Your task to perform on an android device: What is the recent news? Image 0: 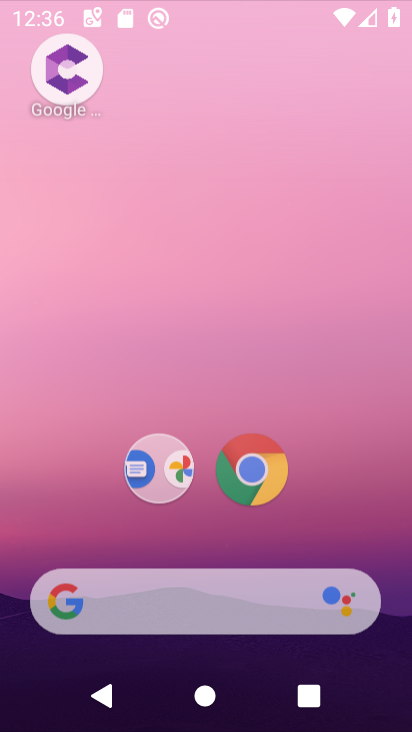
Step 0: drag from (291, 279) to (271, 137)
Your task to perform on an android device: What is the recent news? Image 1: 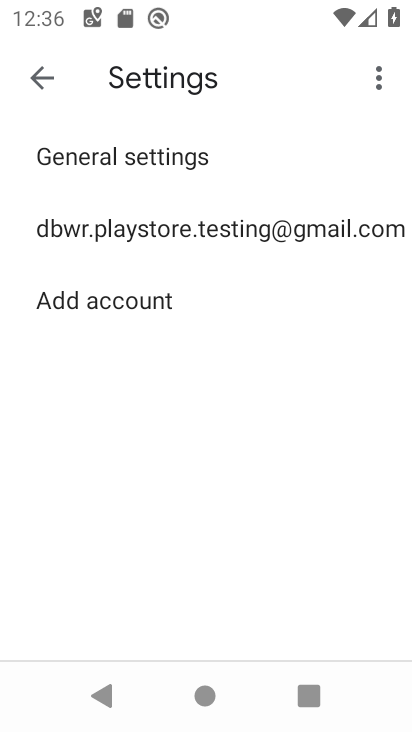
Step 1: press home button
Your task to perform on an android device: What is the recent news? Image 2: 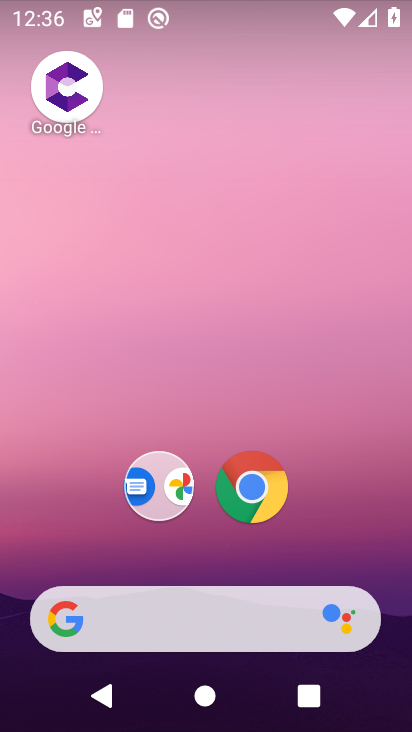
Step 2: drag from (264, 657) to (283, 179)
Your task to perform on an android device: What is the recent news? Image 3: 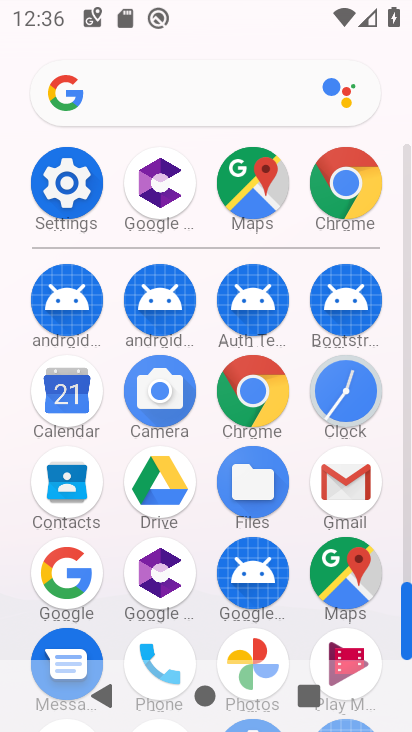
Step 3: click (153, 109)
Your task to perform on an android device: What is the recent news? Image 4: 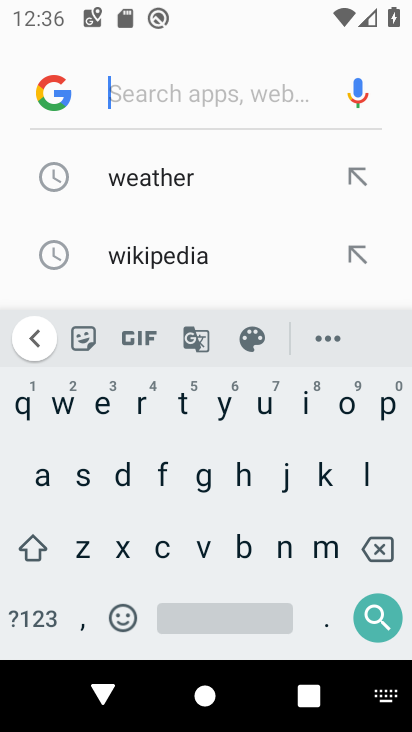
Step 4: click (140, 408)
Your task to perform on an android device: What is the recent news? Image 5: 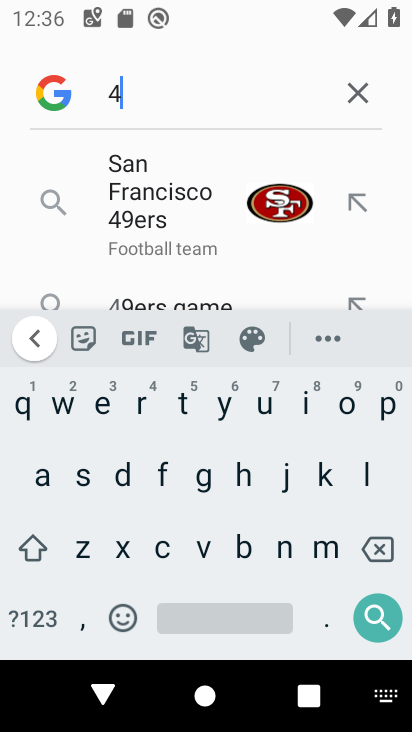
Step 5: click (390, 551)
Your task to perform on an android device: What is the recent news? Image 6: 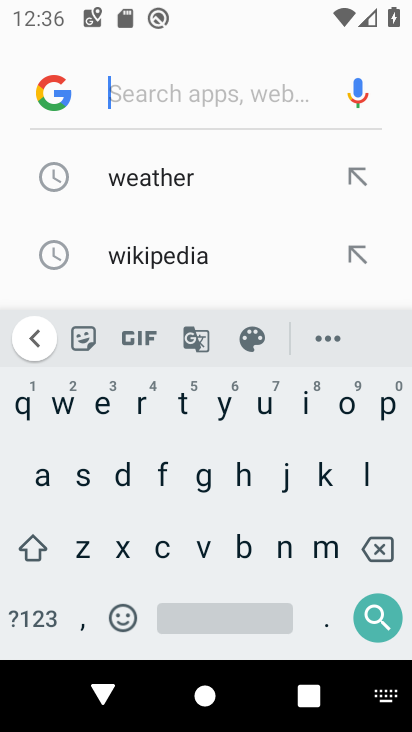
Step 6: click (139, 410)
Your task to perform on an android device: What is the recent news? Image 7: 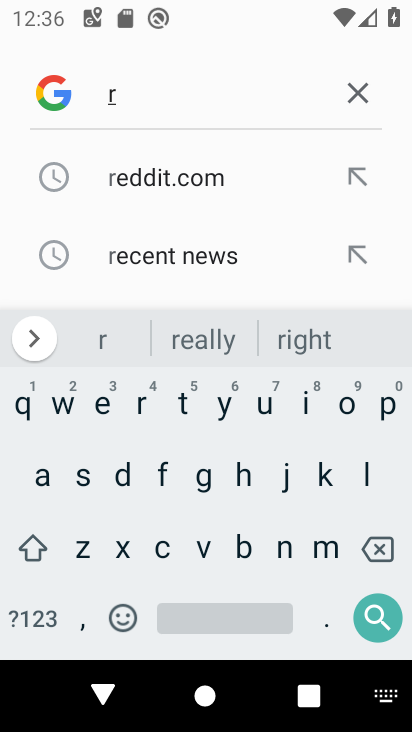
Step 7: click (179, 268)
Your task to perform on an android device: What is the recent news? Image 8: 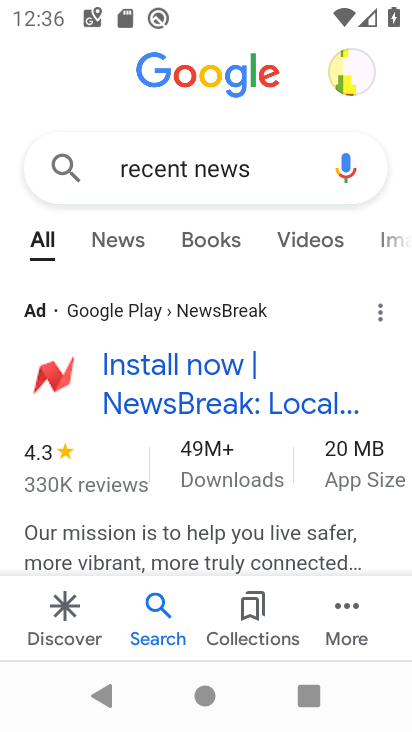
Step 8: drag from (141, 495) to (184, 300)
Your task to perform on an android device: What is the recent news? Image 9: 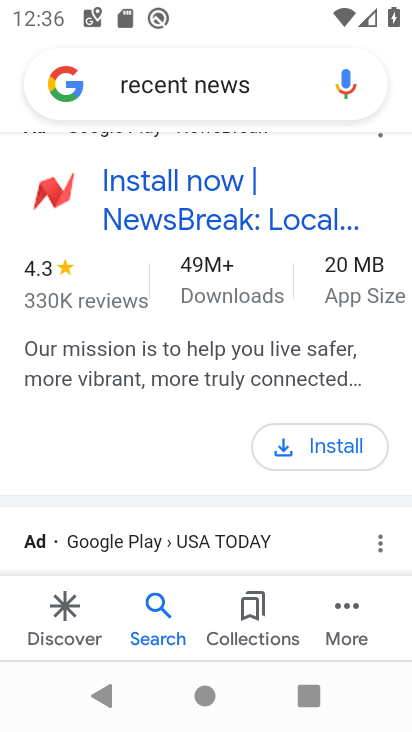
Step 9: drag from (175, 513) to (237, 229)
Your task to perform on an android device: What is the recent news? Image 10: 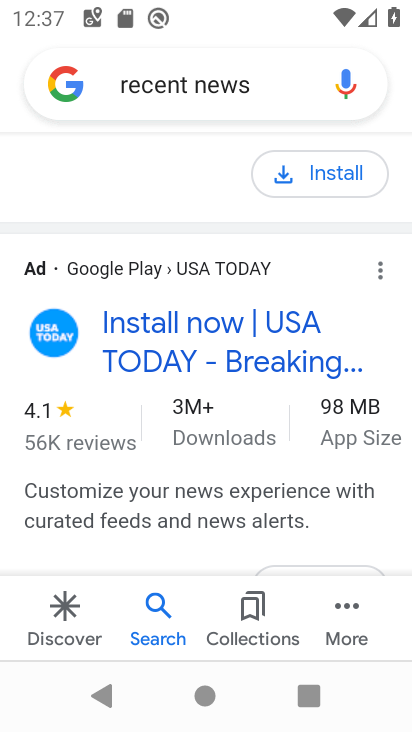
Step 10: drag from (189, 310) to (197, 503)
Your task to perform on an android device: What is the recent news? Image 11: 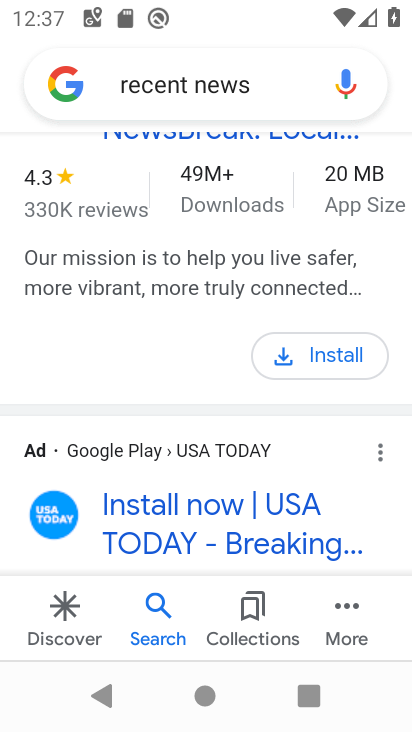
Step 11: drag from (200, 296) to (204, 503)
Your task to perform on an android device: What is the recent news? Image 12: 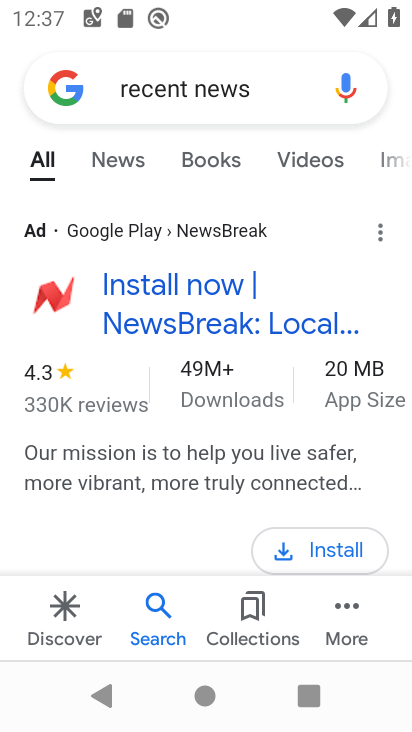
Step 12: drag from (188, 302) to (184, 502)
Your task to perform on an android device: What is the recent news? Image 13: 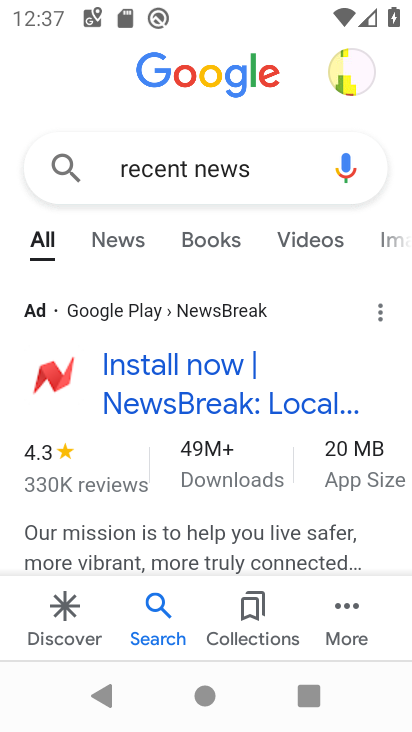
Step 13: click (119, 244)
Your task to perform on an android device: What is the recent news? Image 14: 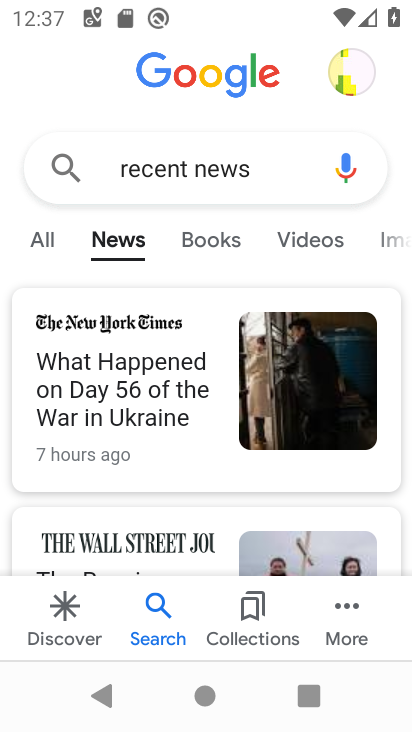
Step 14: task complete